Your task to perform on an android device: toggle notification dots Image 0: 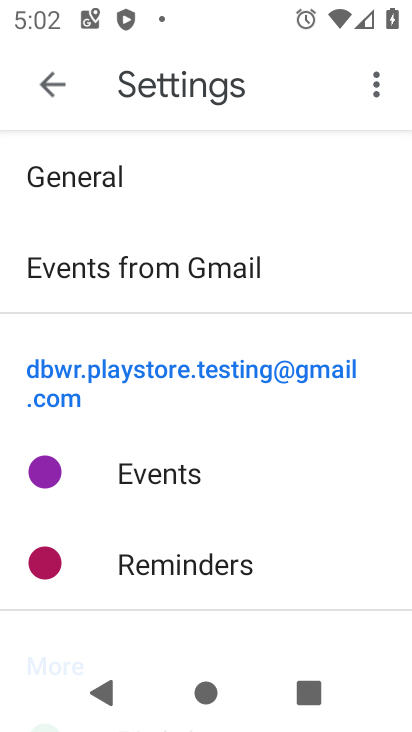
Step 0: press home button
Your task to perform on an android device: toggle notification dots Image 1: 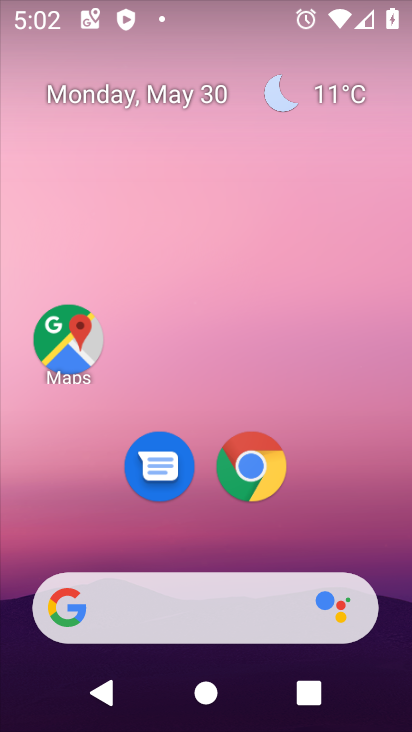
Step 1: drag from (374, 474) to (347, 120)
Your task to perform on an android device: toggle notification dots Image 2: 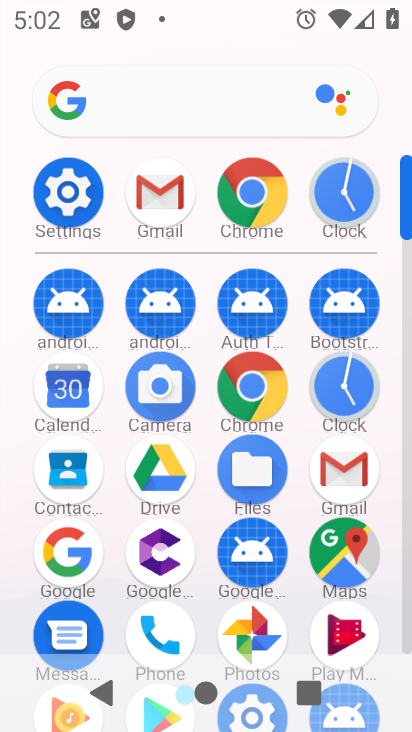
Step 2: click (90, 191)
Your task to perform on an android device: toggle notification dots Image 3: 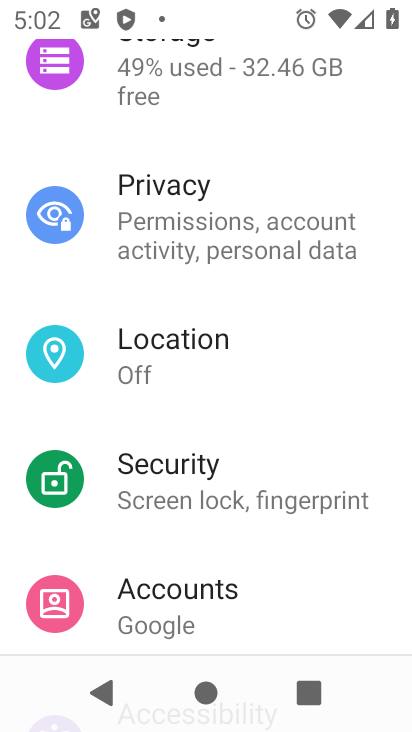
Step 3: drag from (242, 165) to (222, 688)
Your task to perform on an android device: toggle notification dots Image 4: 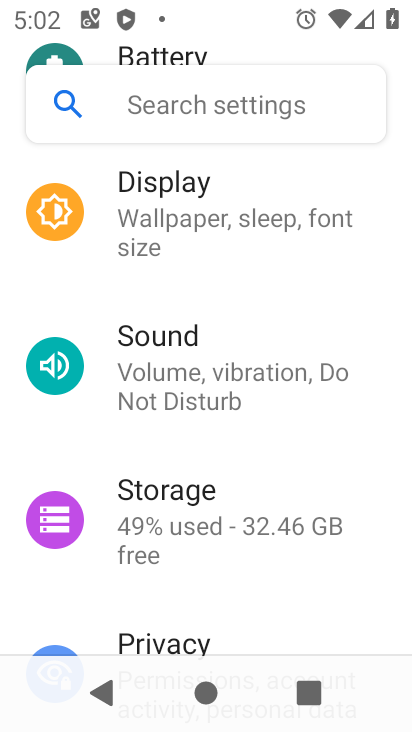
Step 4: drag from (218, 291) to (203, 578)
Your task to perform on an android device: toggle notification dots Image 5: 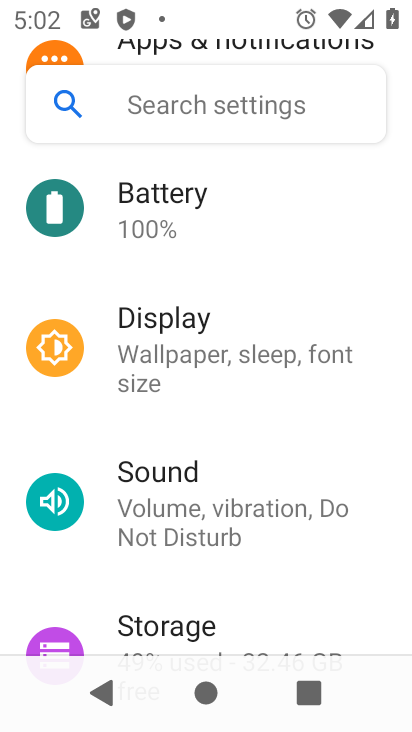
Step 5: drag from (202, 206) to (218, 527)
Your task to perform on an android device: toggle notification dots Image 6: 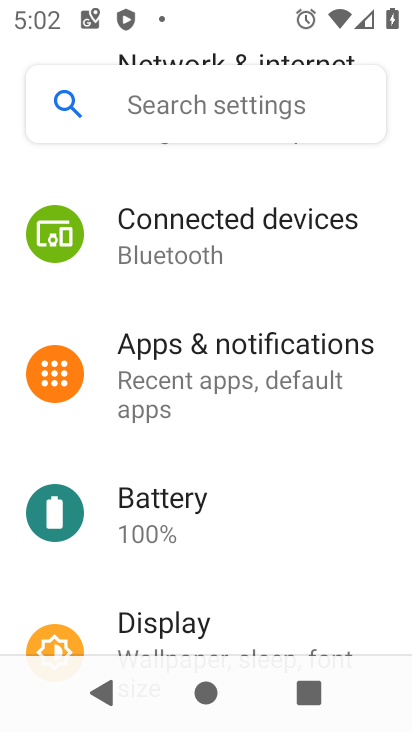
Step 6: click (244, 527)
Your task to perform on an android device: toggle notification dots Image 7: 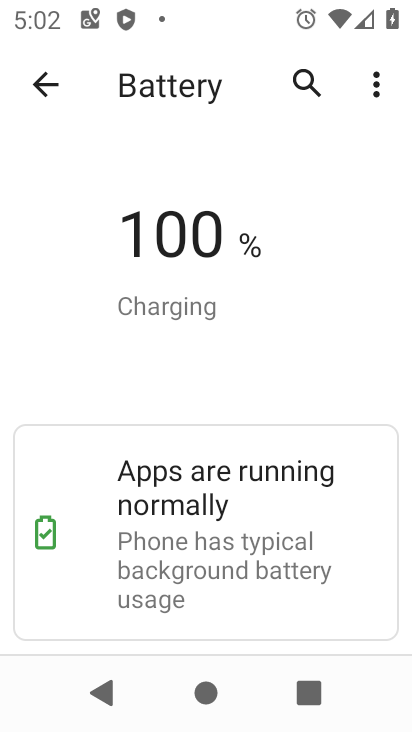
Step 7: click (48, 102)
Your task to perform on an android device: toggle notification dots Image 8: 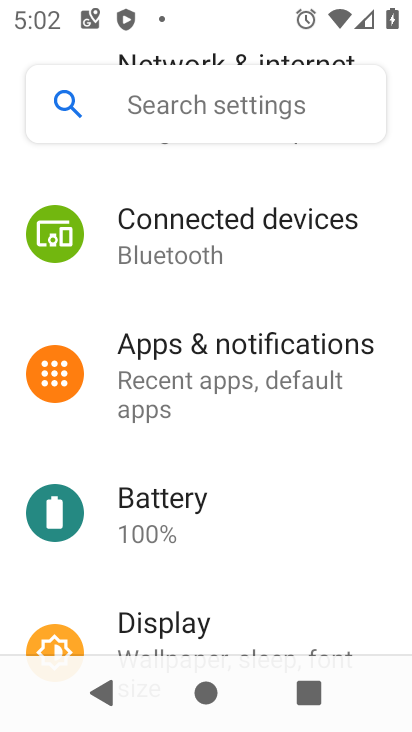
Step 8: click (246, 345)
Your task to perform on an android device: toggle notification dots Image 9: 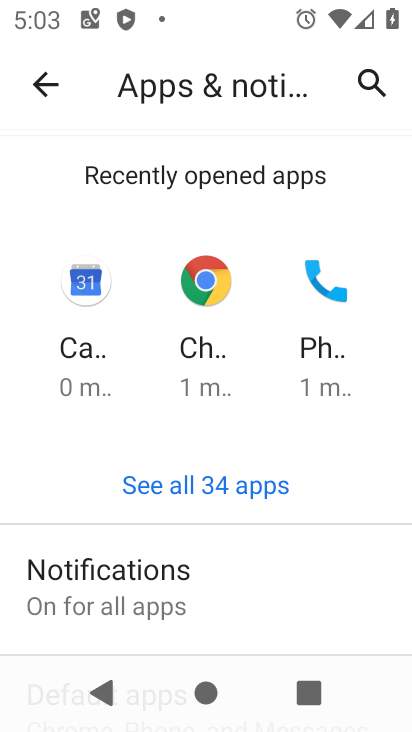
Step 9: drag from (267, 547) to (282, 169)
Your task to perform on an android device: toggle notification dots Image 10: 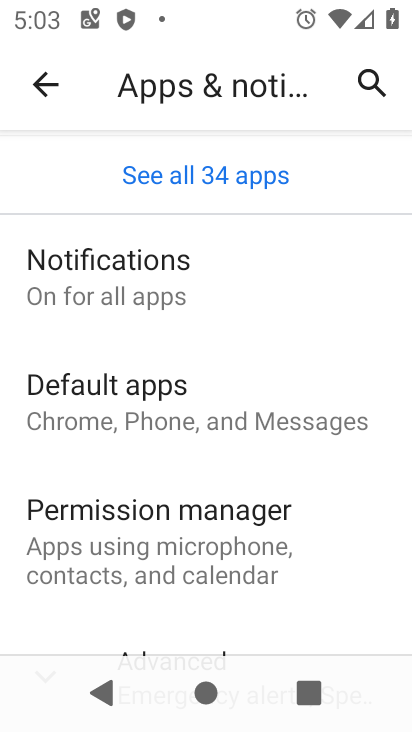
Step 10: click (104, 308)
Your task to perform on an android device: toggle notification dots Image 11: 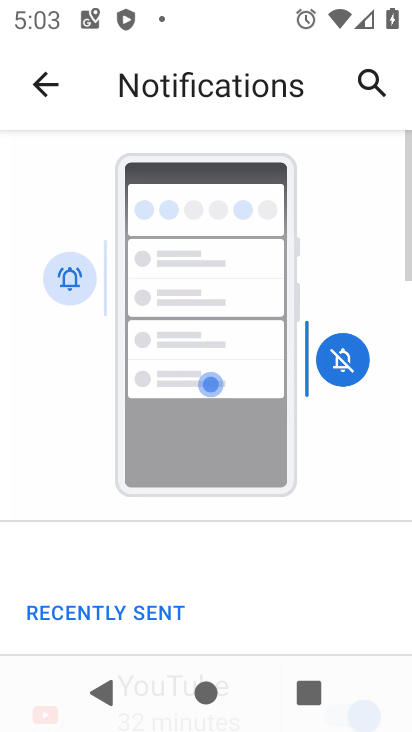
Step 11: drag from (316, 589) to (308, 56)
Your task to perform on an android device: toggle notification dots Image 12: 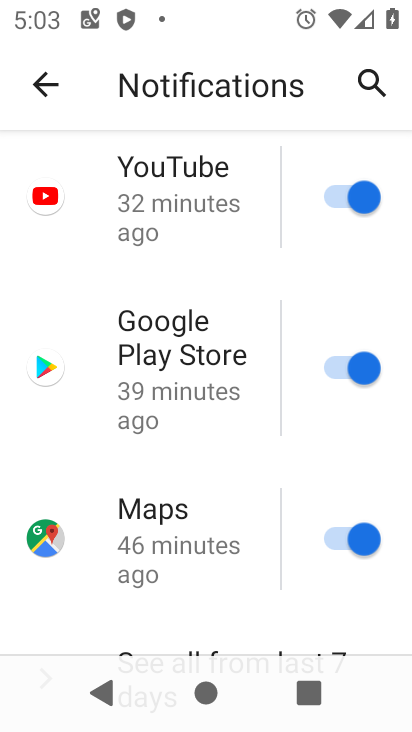
Step 12: drag from (241, 585) to (245, 103)
Your task to perform on an android device: toggle notification dots Image 13: 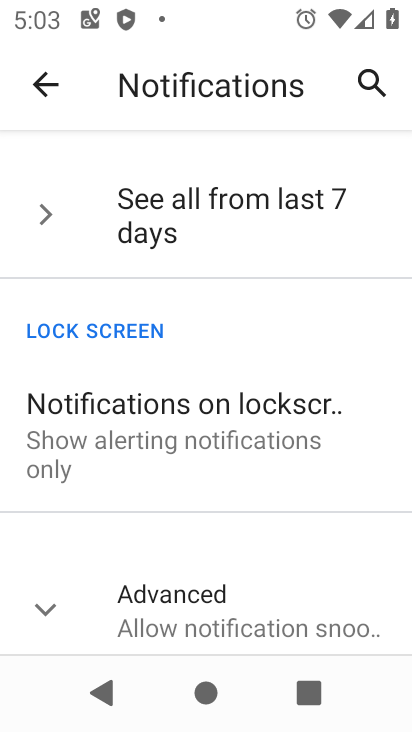
Step 13: drag from (184, 493) to (214, 168)
Your task to perform on an android device: toggle notification dots Image 14: 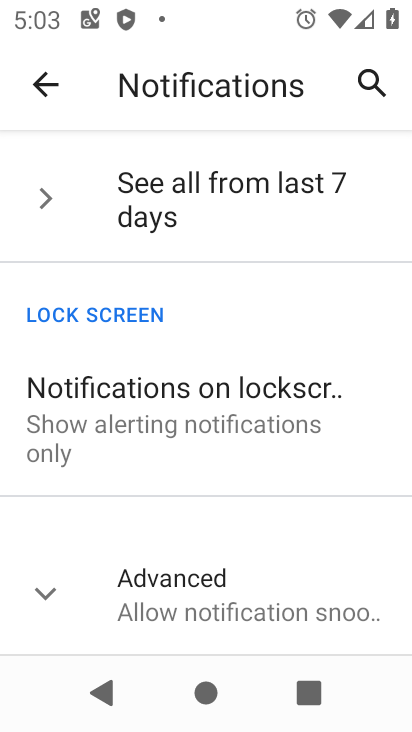
Step 14: click (195, 566)
Your task to perform on an android device: toggle notification dots Image 15: 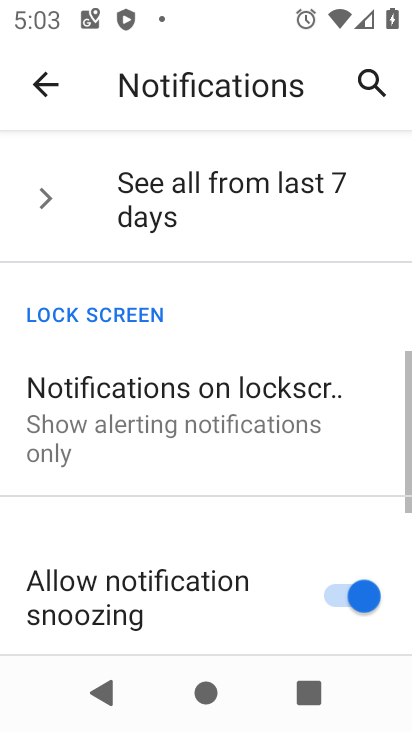
Step 15: drag from (230, 514) to (197, 87)
Your task to perform on an android device: toggle notification dots Image 16: 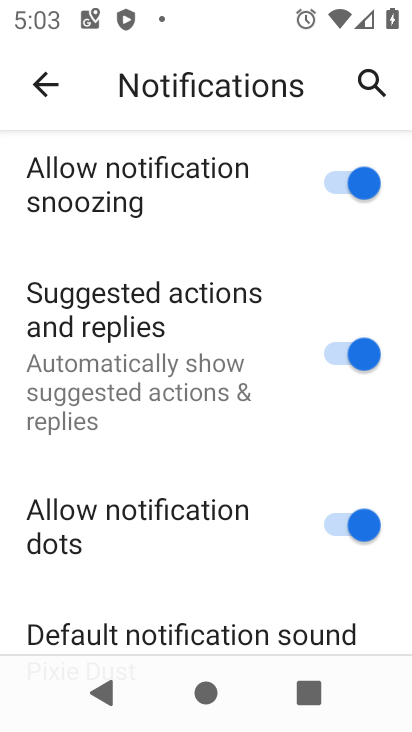
Step 16: click (368, 523)
Your task to perform on an android device: toggle notification dots Image 17: 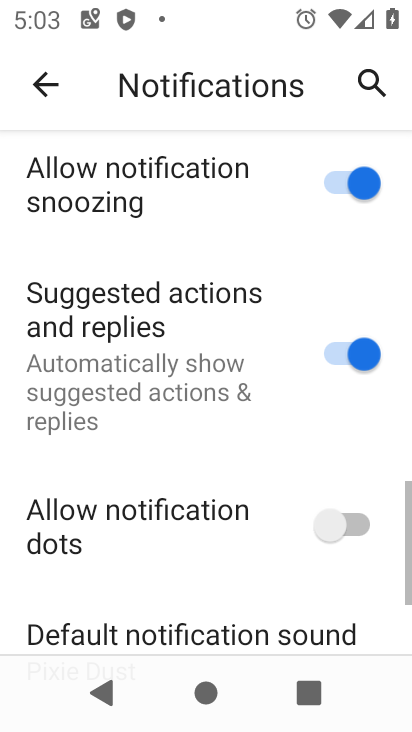
Step 17: task complete